Your task to perform on an android device: Go to Android settings Image 0: 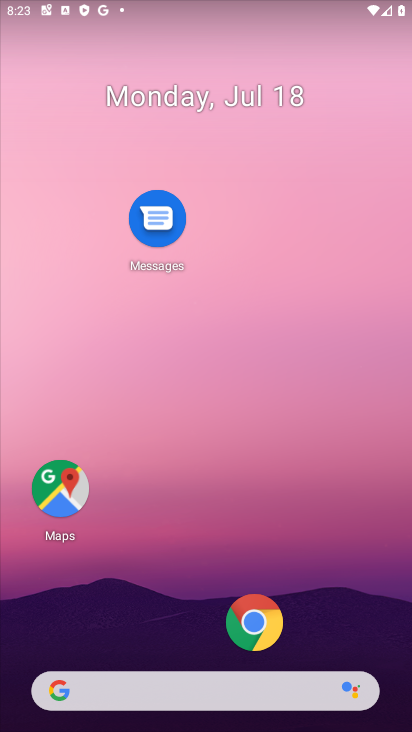
Step 0: drag from (209, 717) to (219, 302)
Your task to perform on an android device: Go to Android settings Image 1: 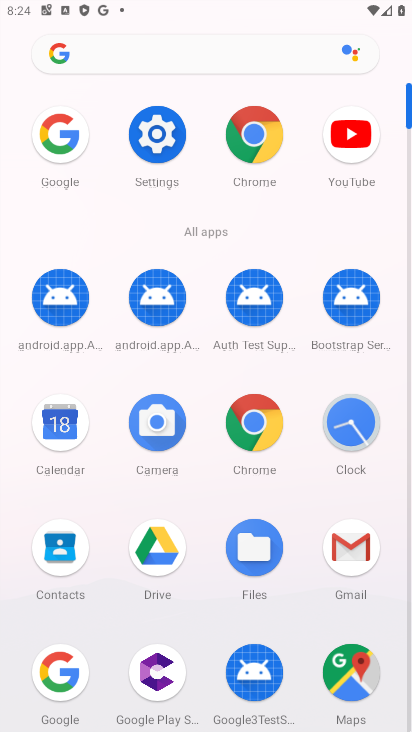
Step 1: click (167, 142)
Your task to perform on an android device: Go to Android settings Image 2: 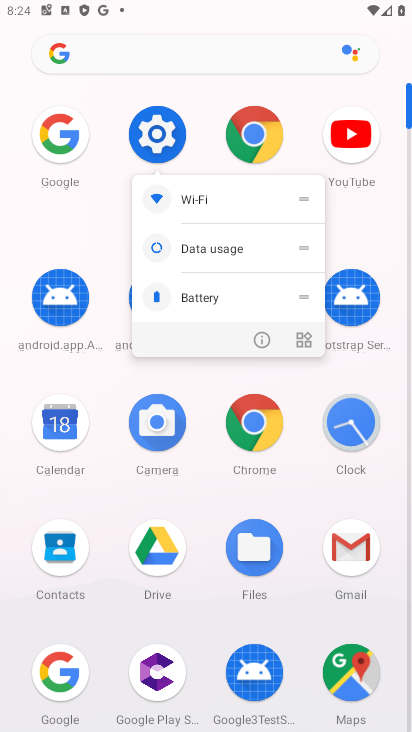
Step 2: click (155, 125)
Your task to perform on an android device: Go to Android settings Image 3: 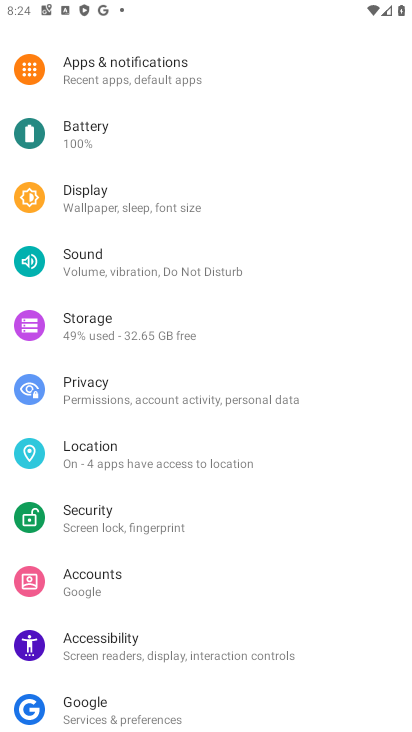
Step 3: drag from (138, 297) to (149, 55)
Your task to perform on an android device: Go to Android settings Image 4: 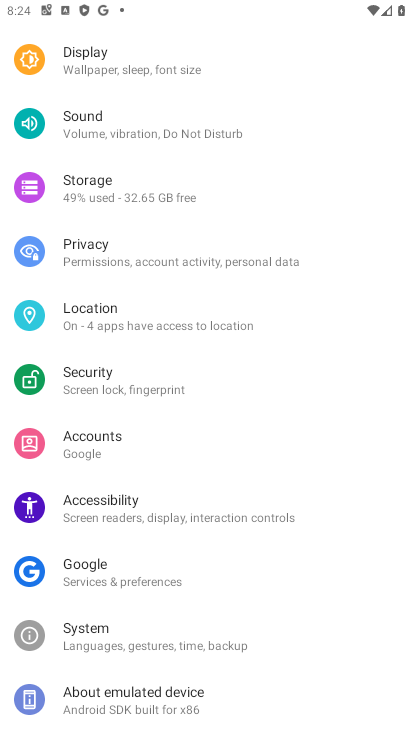
Step 4: drag from (166, 630) to (167, 321)
Your task to perform on an android device: Go to Android settings Image 5: 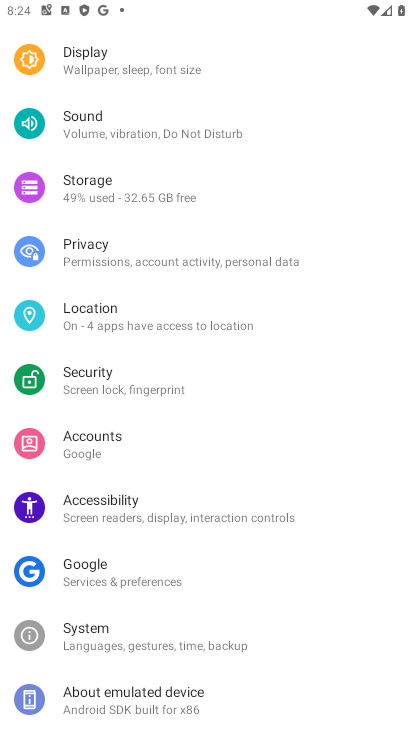
Step 5: click (145, 696)
Your task to perform on an android device: Go to Android settings Image 6: 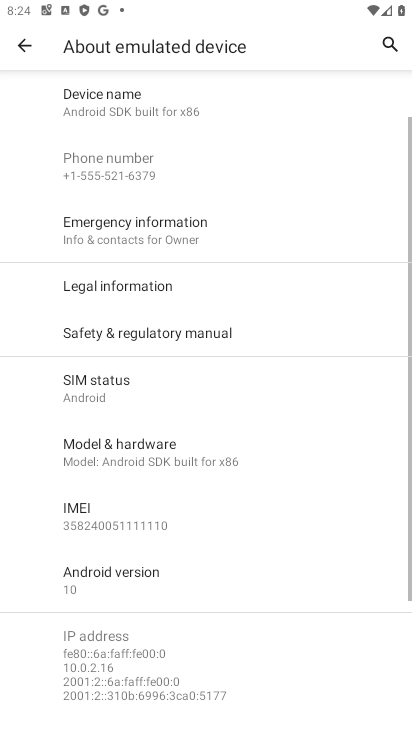
Step 6: click (139, 589)
Your task to perform on an android device: Go to Android settings Image 7: 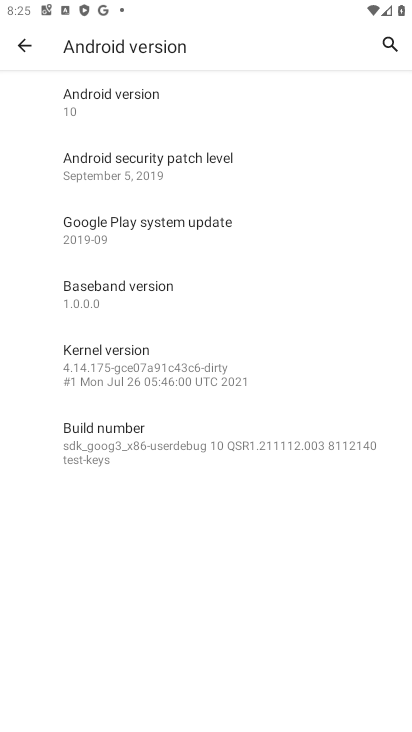
Step 7: click (121, 106)
Your task to perform on an android device: Go to Android settings Image 8: 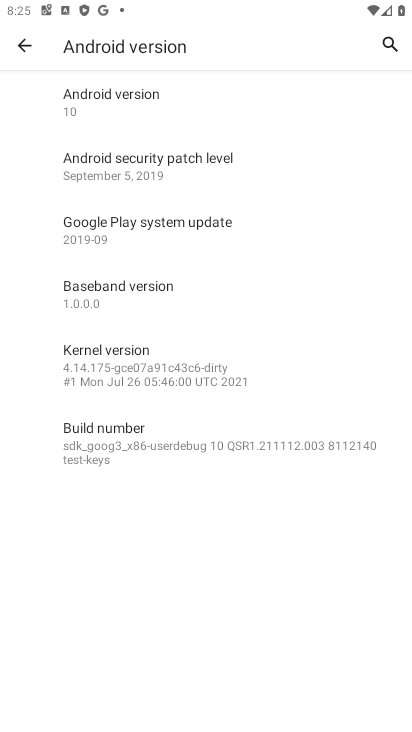
Step 8: task complete